Your task to perform on an android device: change notifications settings Image 0: 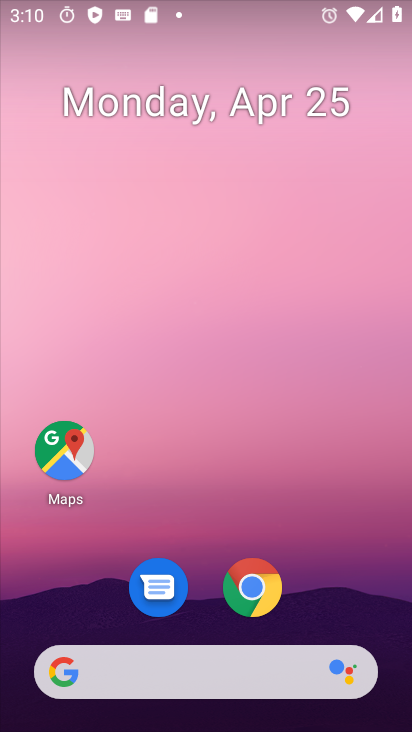
Step 0: drag from (371, 566) to (211, 49)
Your task to perform on an android device: change notifications settings Image 1: 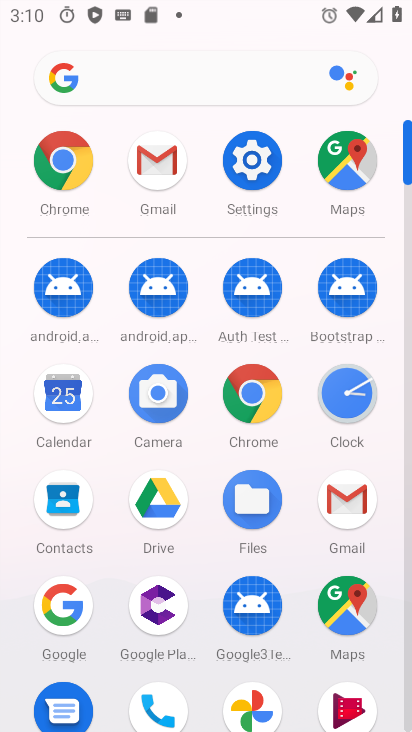
Step 1: drag from (295, 577) to (289, 140)
Your task to perform on an android device: change notifications settings Image 2: 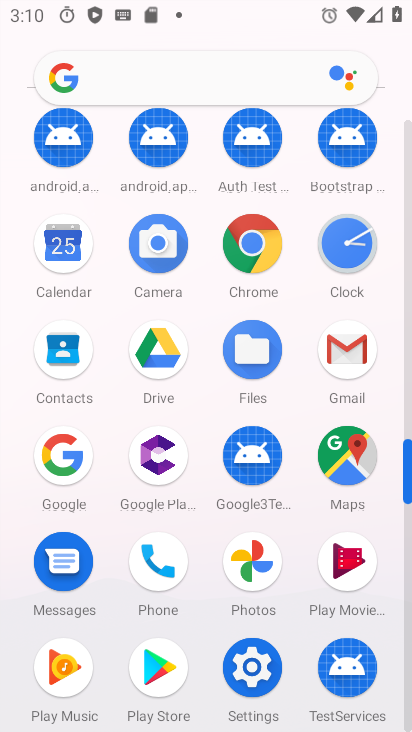
Step 2: click (245, 671)
Your task to perform on an android device: change notifications settings Image 3: 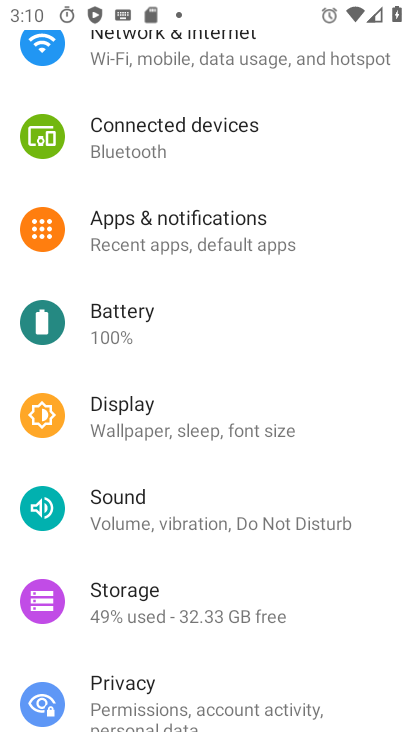
Step 3: click (193, 240)
Your task to perform on an android device: change notifications settings Image 4: 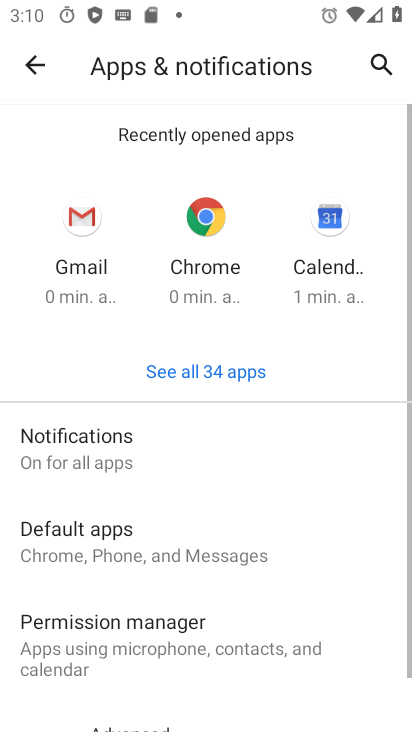
Step 4: click (123, 440)
Your task to perform on an android device: change notifications settings Image 5: 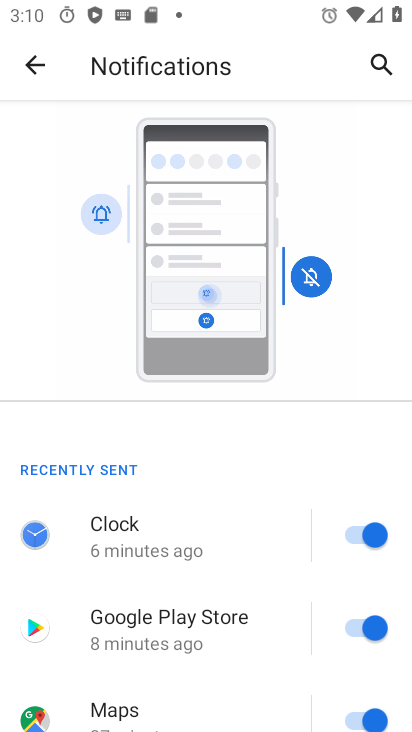
Step 5: task complete